Your task to perform on an android device: toggle notifications settings in the gmail app Image 0: 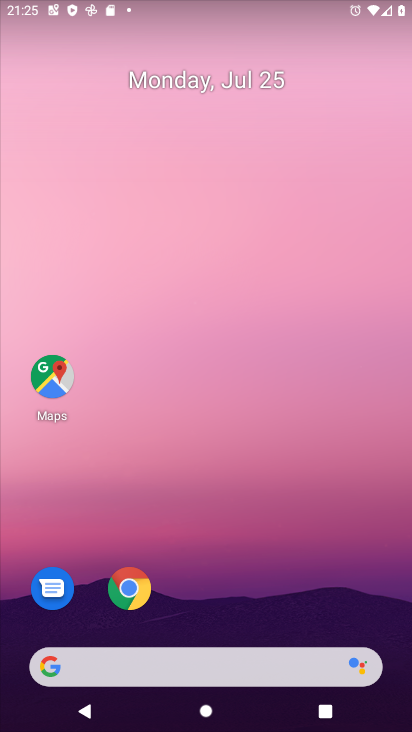
Step 0: drag from (207, 555) to (208, 195)
Your task to perform on an android device: toggle notifications settings in the gmail app Image 1: 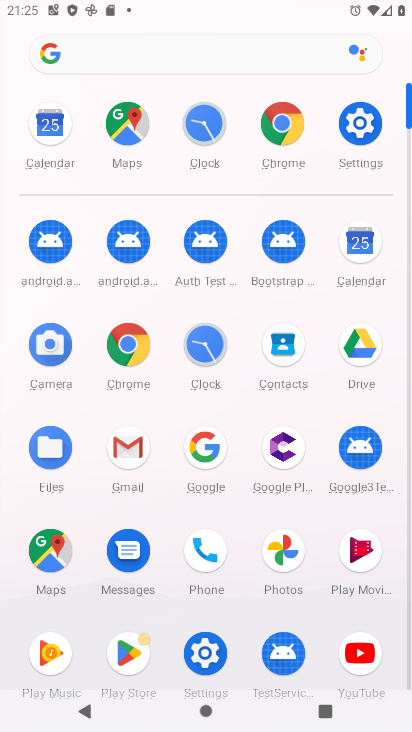
Step 1: click (127, 446)
Your task to perform on an android device: toggle notifications settings in the gmail app Image 2: 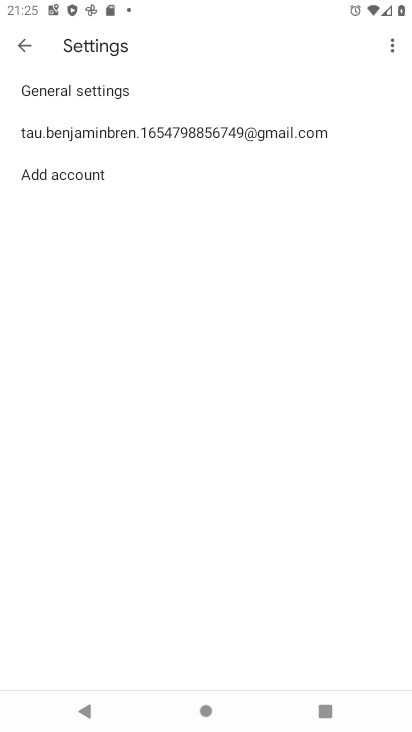
Step 2: click (20, 45)
Your task to perform on an android device: toggle notifications settings in the gmail app Image 3: 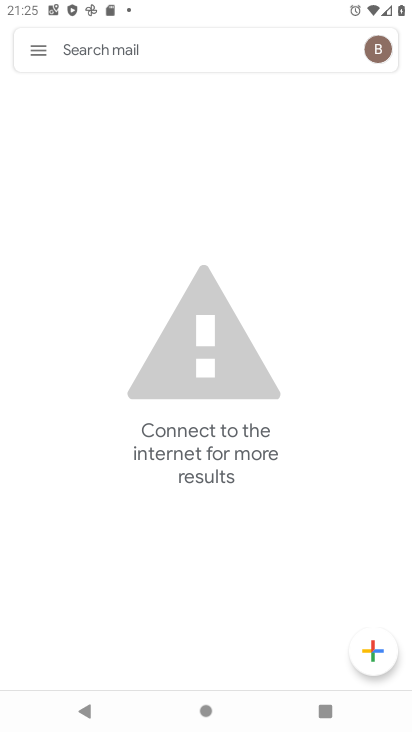
Step 3: click (42, 48)
Your task to perform on an android device: toggle notifications settings in the gmail app Image 4: 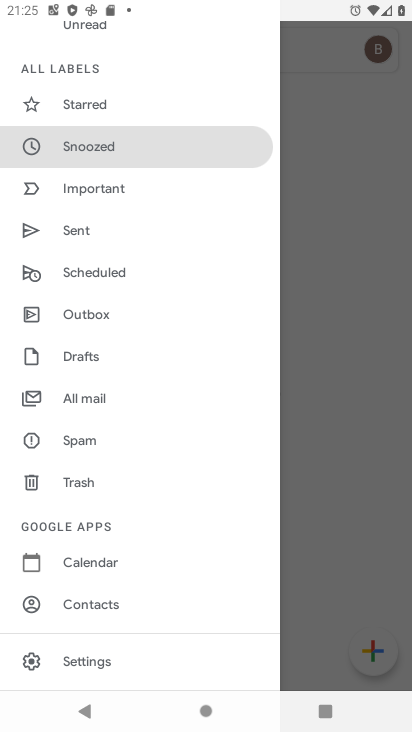
Step 4: click (98, 664)
Your task to perform on an android device: toggle notifications settings in the gmail app Image 5: 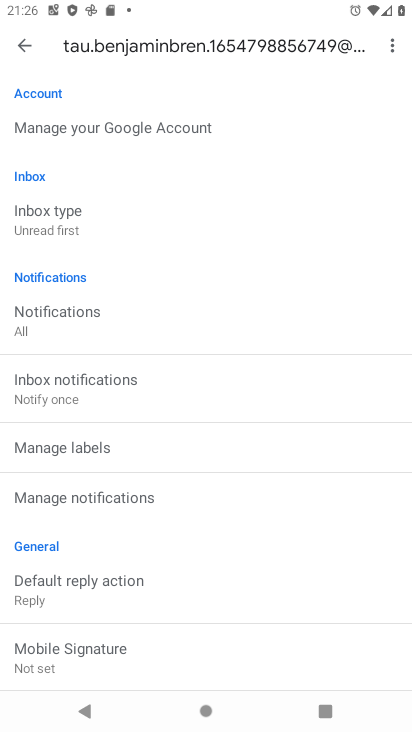
Step 5: click (77, 496)
Your task to perform on an android device: toggle notifications settings in the gmail app Image 6: 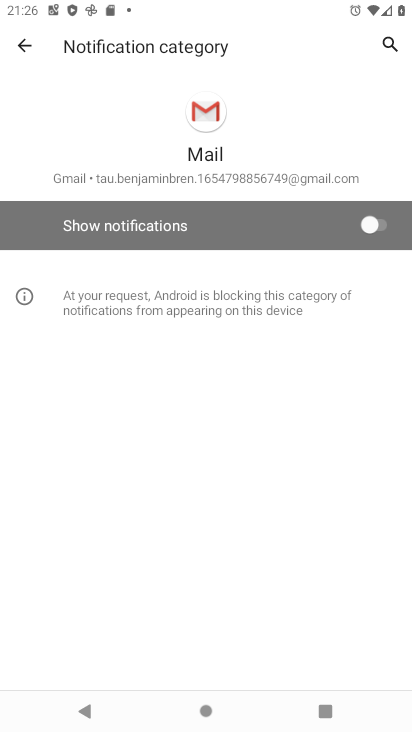
Step 6: click (370, 227)
Your task to perform on an android device: toggle notifications settings in the gmail app Image 7: 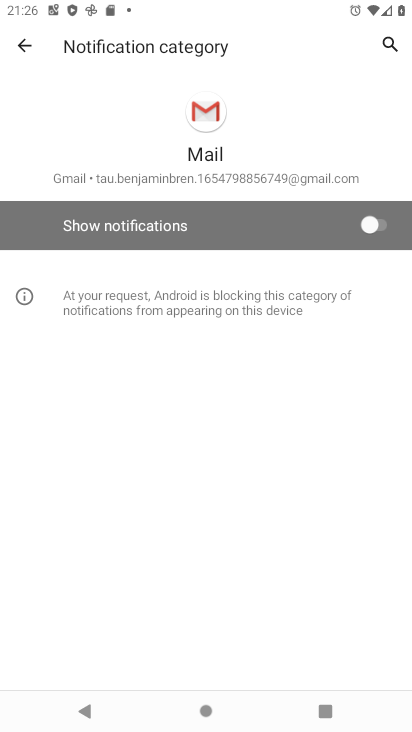
Step 7: click (380, 223)
Your task to perform on an android device: toggle notifications settings in the gmail app Image 8: 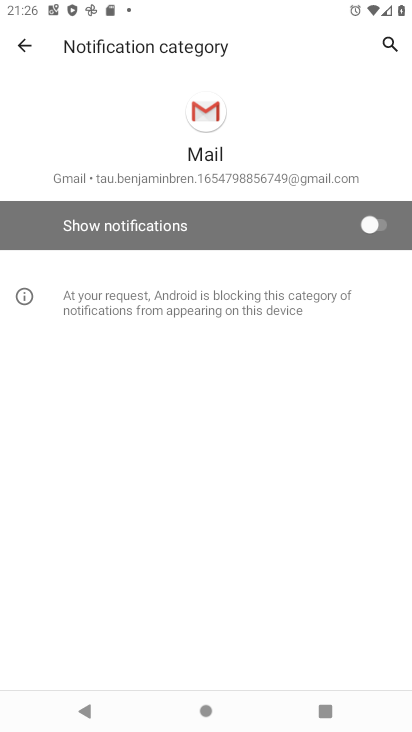
Step 8: click (372, 218)
Your task to perform on an android device: toggle notifications settings in the gmail app Image 9: 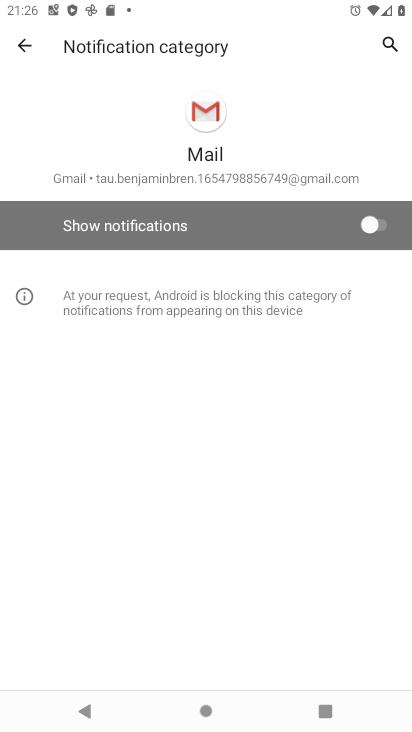
Step 9: drag from (244, 160) to (273, 430)
Your task to perform on an android device: toggle notifications settings in the gmail app Image 10: 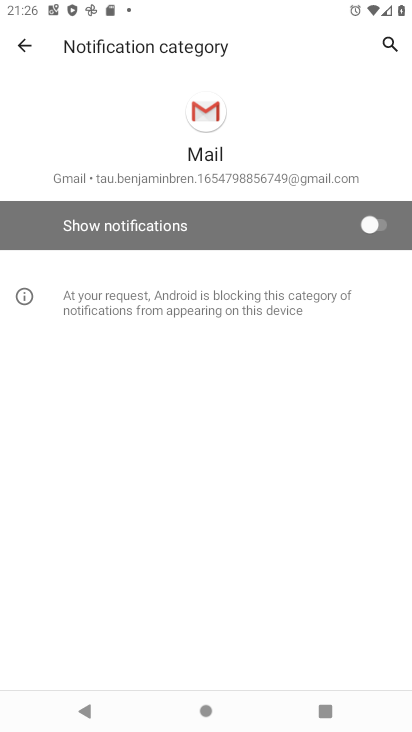
Step 10: click (379, 224)
Your task to perform on an android device: toggle notifications settings in the gmail app Image 11: 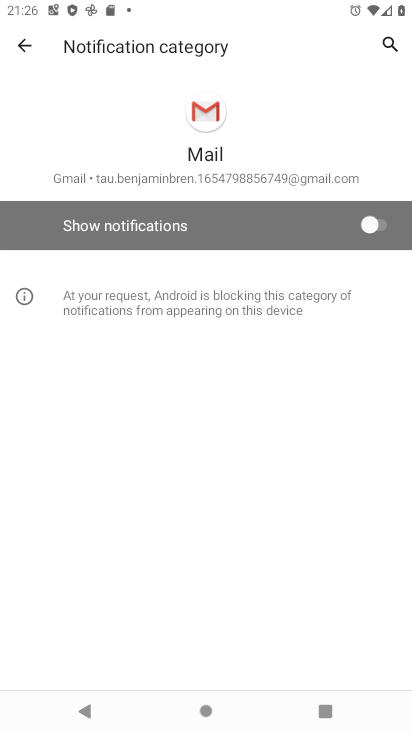
Step 11: task complete